Your task to perform on an android device: Go to notification settings Image 0: 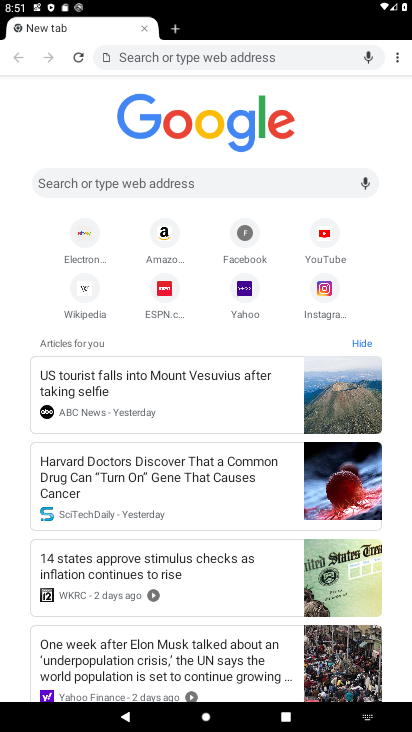
Step 0: press home button
Your task to perform on an android device: Go to notification settings Image 1: 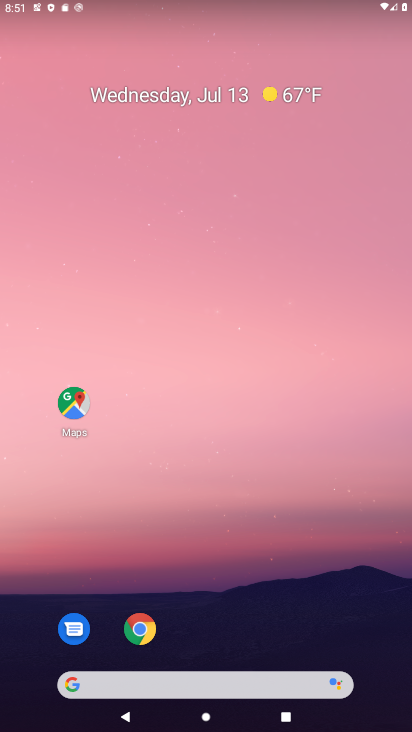
Step 1: drag from (184, 537) to (388, 30)
Your task to perform on an android device: Go to notification settings Image 2: 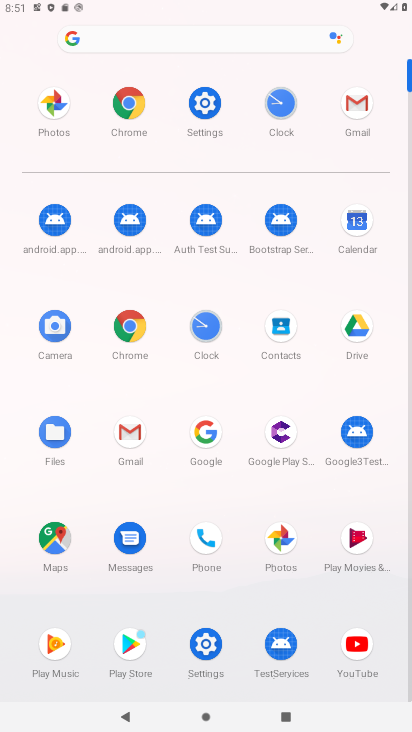
Step 2: click (207, 657)
Your task to perform on an android device: Go to notification settings Image 3: 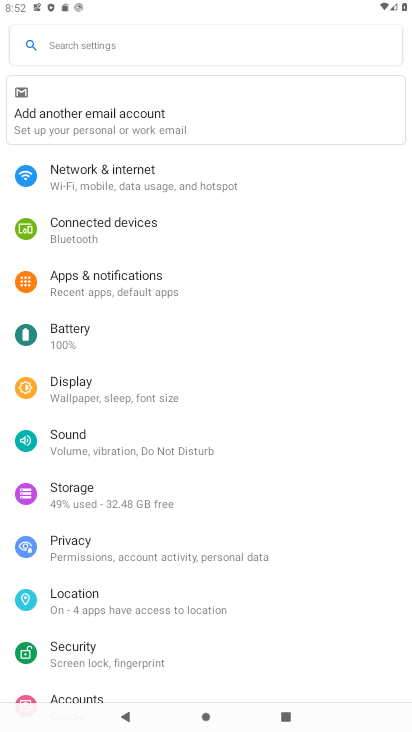
Step 3: click (149, 184)
Your task to perform on an android device: Go to notification settings Image 4: 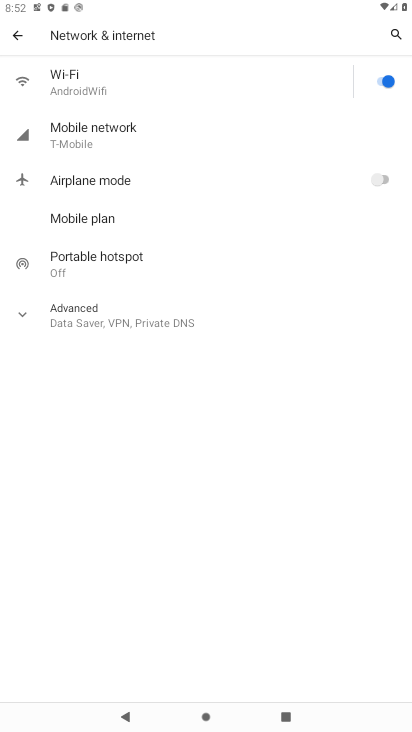
Step 4: task complete